Your task to perform on an android device: check the backup settings in the google photos Image 0: 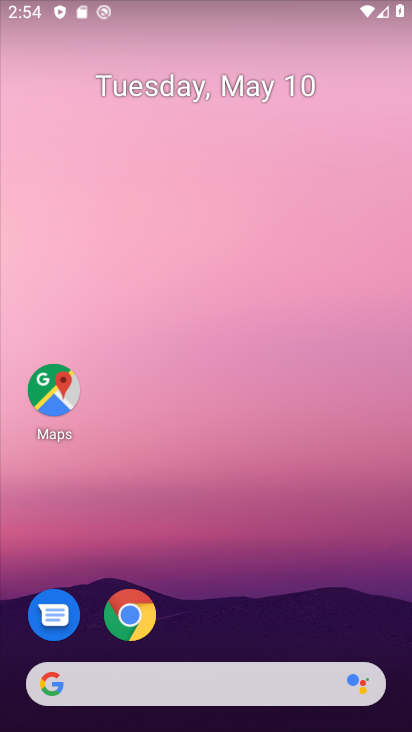
Step 0: drag from (226, 482) to (225, 179)
Your task to perform on an android device: check the backup settings in the google photos Image 1: 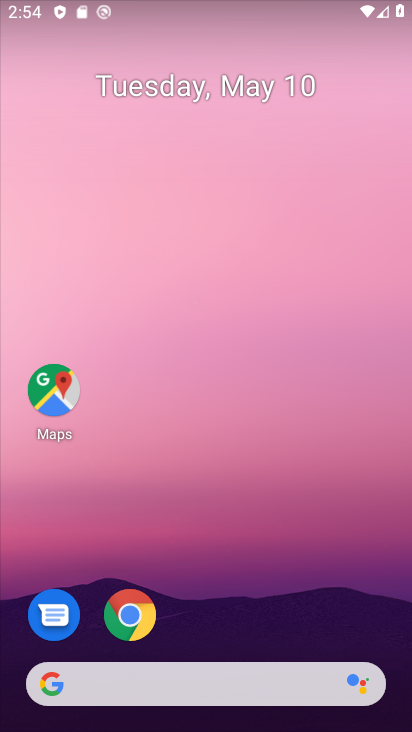
Step 1: drag from (203, 594) to (218, 156)
Your task to perform on an android device: check the backup settings in the google photos Image 2: 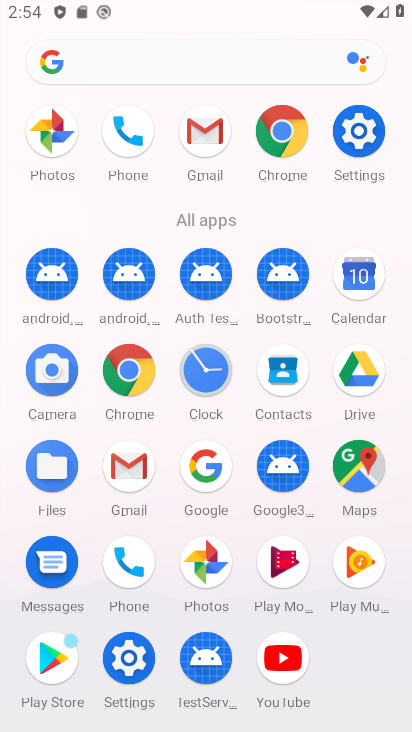
Step 2: click (207, 570)
Your task to perform on an android device: check the backup settings in the google photos Image 3: 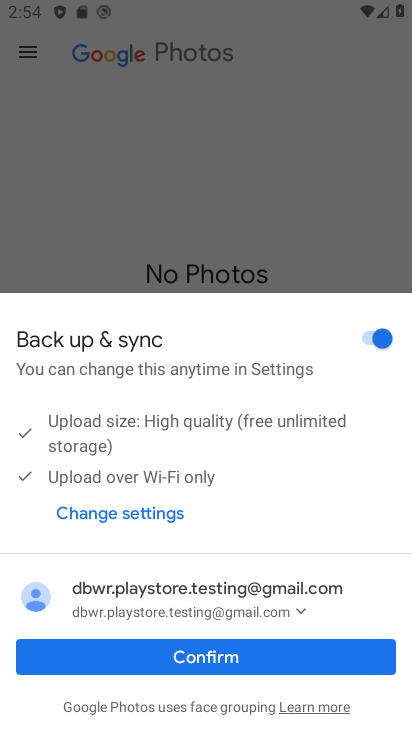
Step 3: click (172, 654)
Your task to perform on an android device: check the backup settings in the google photos Image 4: 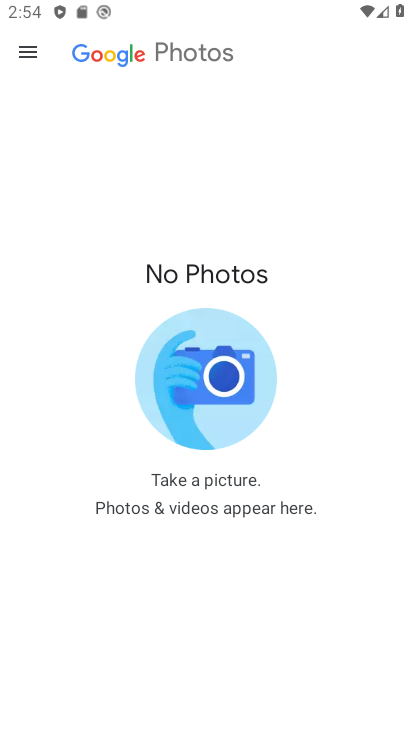
Step 4: click (20, 57)
Your task to perform on an android device: check the backup settings in the google photos Image 5: 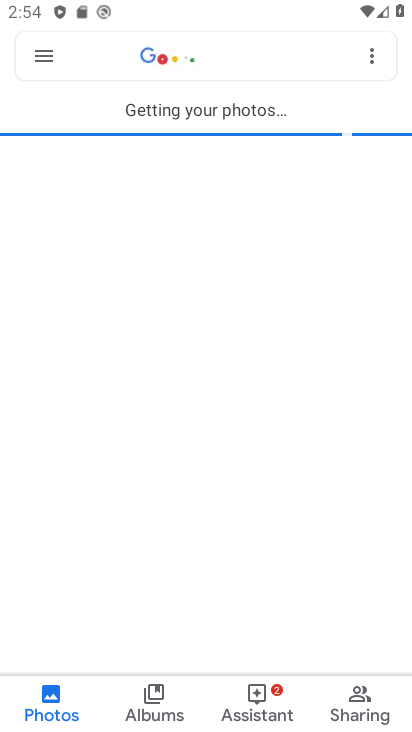
Step 5: click (46, 60)
Your task to perform on an android device: check the backup settings in the google photos Image 6: 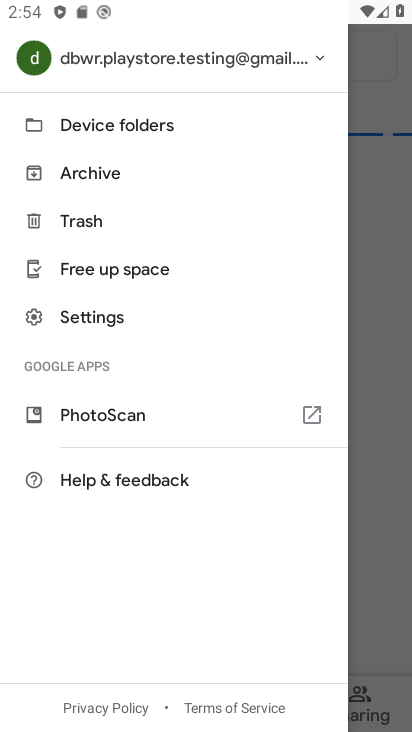
Step 6: click (105, 323)
Your task to perform on an android device: check the backup settings in the google photos Image 7: 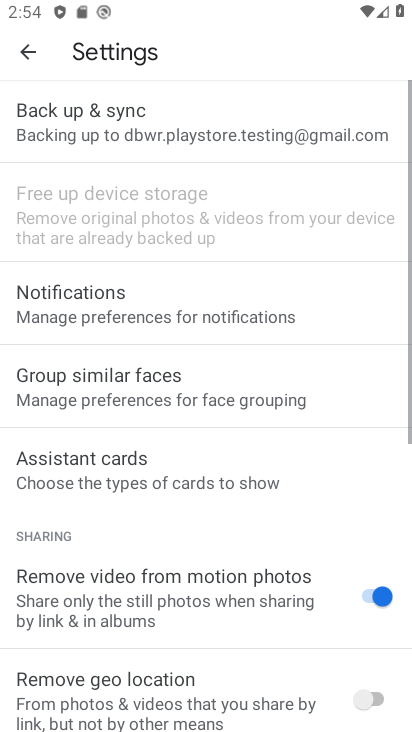
Step 7: click (125, 133)
Your task to perform on an android device: check the backup settings in the google photos Image 8: 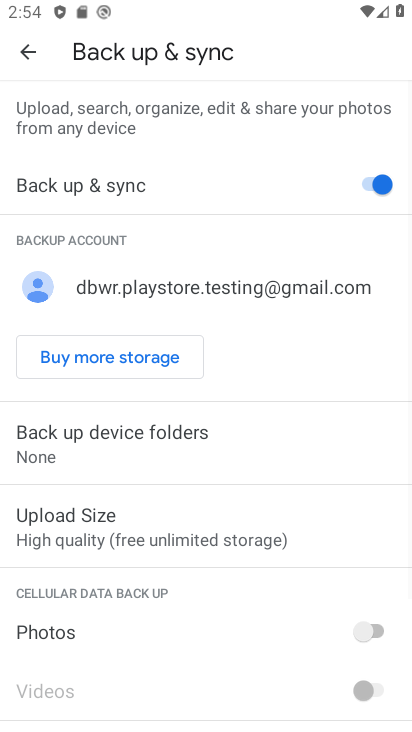
Step 8: task complete